Your task to perform on an android device: What's on my calendar today? Image 0: 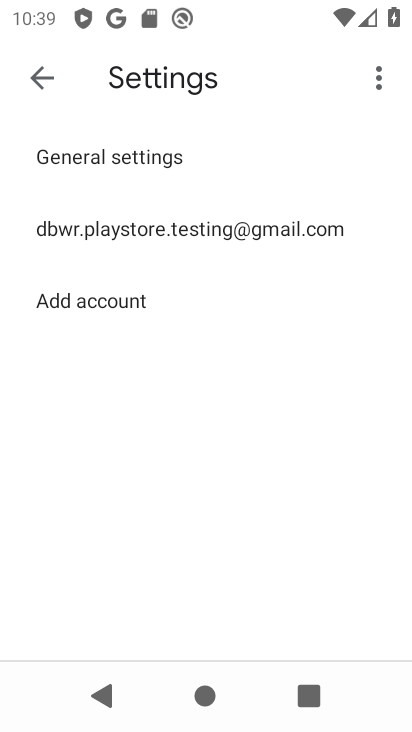
Step 0: press home button
Your task to perform on an android device: What's on my calendar today? Image 1: 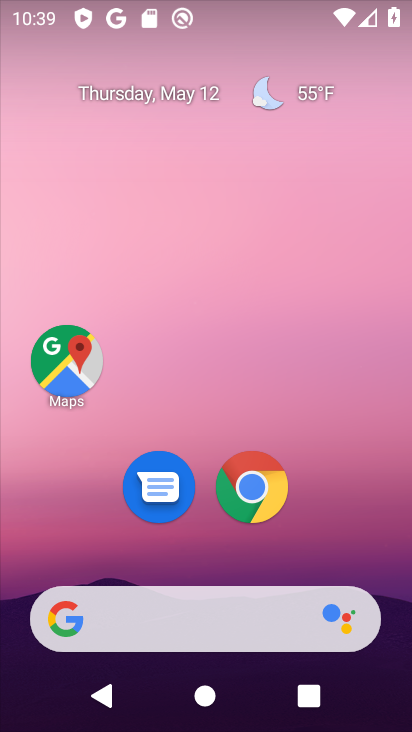
Step 1: drag from (345, 517) to (286, 8)
Your task to perform on an android device: What's on my calendar today? Image 2: 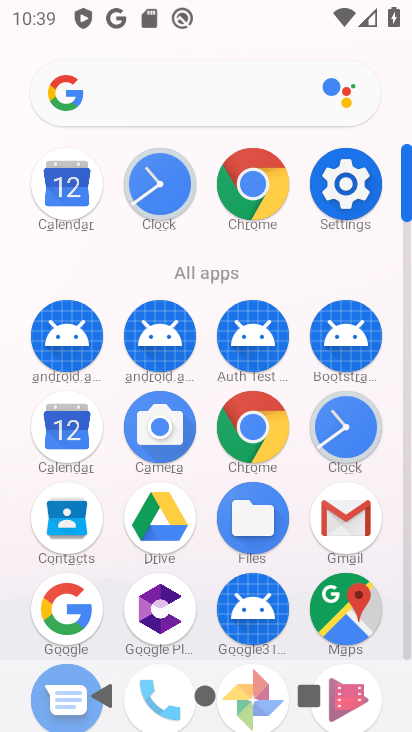
Step 2: click (61, 195)
Your task to perform on an android device: What's on my calendar today? Image 3: 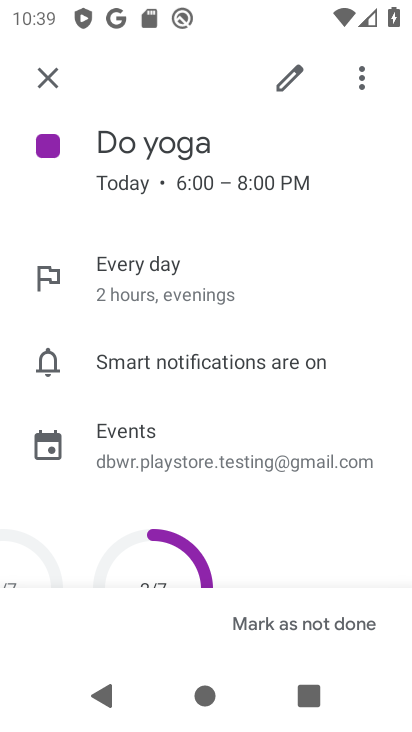
Step 3: click (43, 87)
Your task to perform on an android device: What's on my calendar today? Image 4: 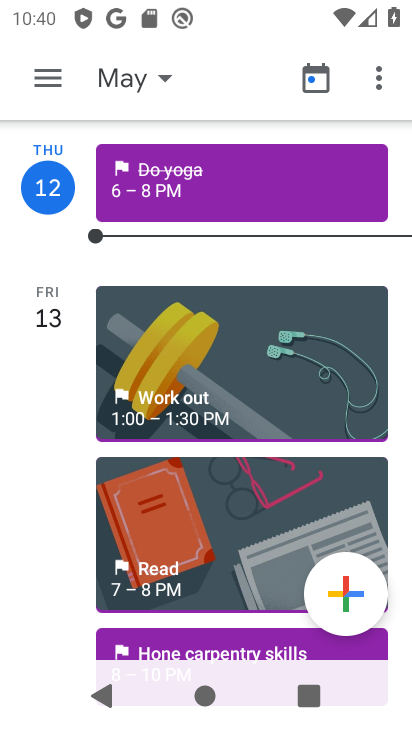
Step 4: click (221, 200)
Your task to perform on an android device: What's on my calendar today? Image 5: 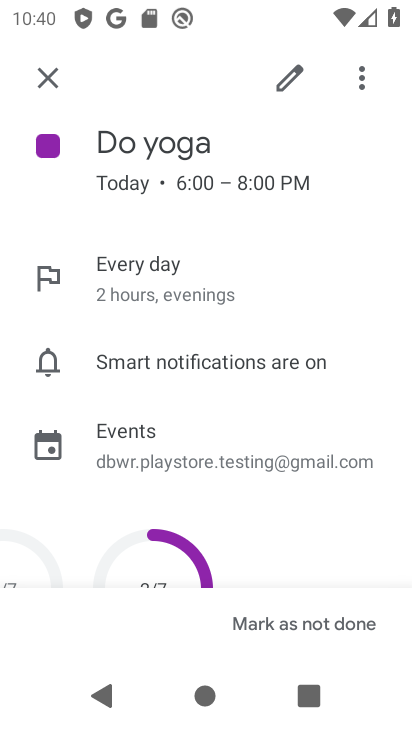
Step 5: task complete